Your task to perform on an android device: Open Chrome and go to settings Image 0: 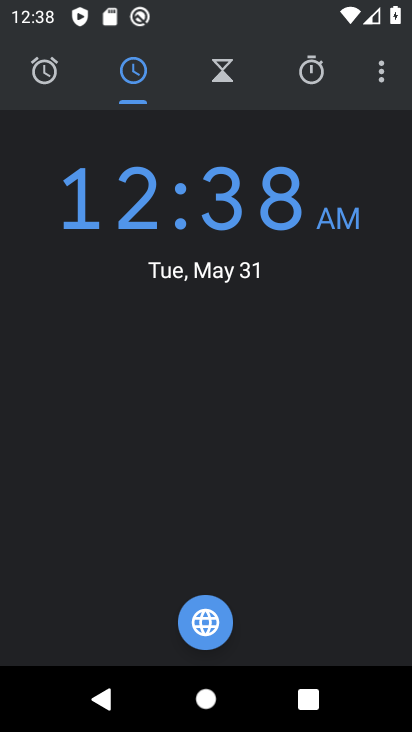
Step 0: press home button
Your task to perform on an android device: Open Chrome and go to settings Image 1: 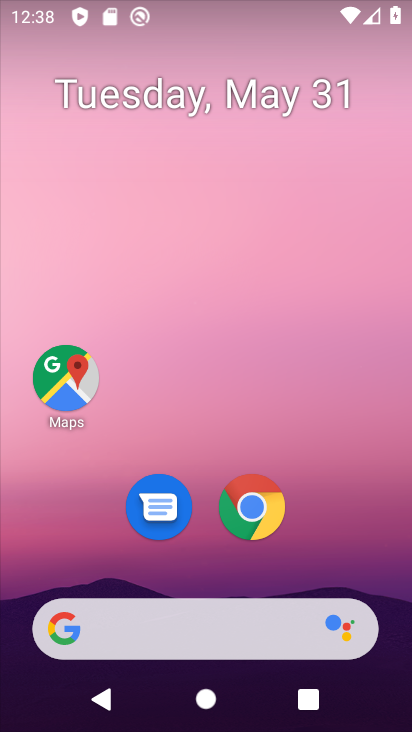
Step 1: click (247, 500)
Your task to perform on an android device: Open Chrome and go to settings Image 2: 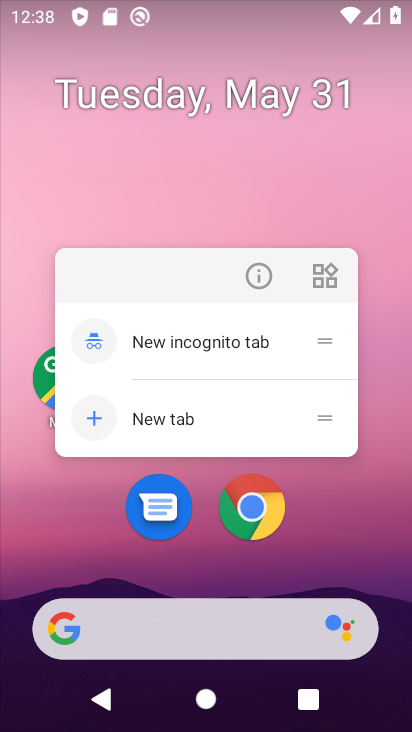
Step 2: click (239, 522)
Your task to perform on an android device: Open Chrome and go to settings Image 3: 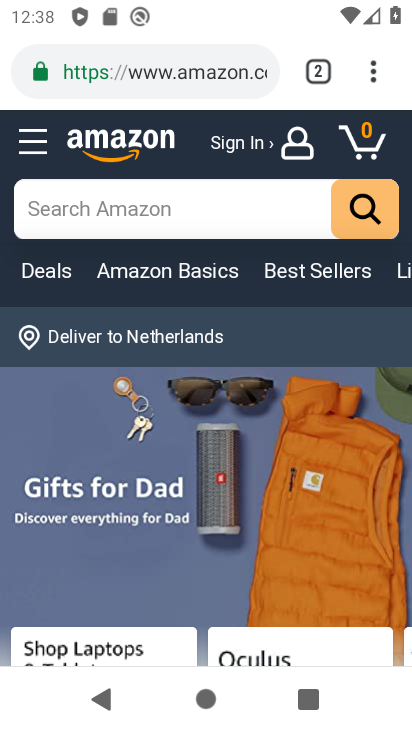
Step 3: task complete